Your task to perform on an android device: see tabs open on other devices in the chrome app Image 0: 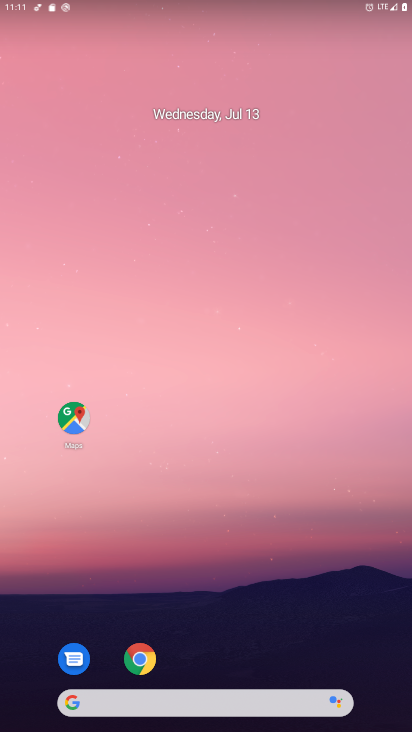
Step 0: press home button
Your task to perform on an android device: see tabs open on other devices in the chrome app Image 1: 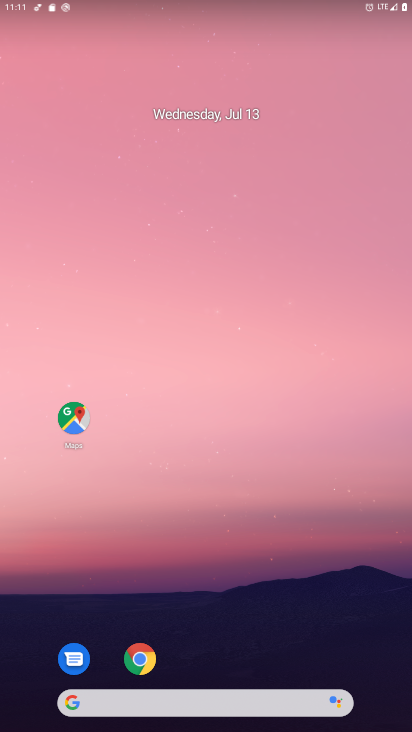
Step 1: click (140, 658)
Your task to perform on an android device: see tabs open on other devices in the chrome app Image 2: 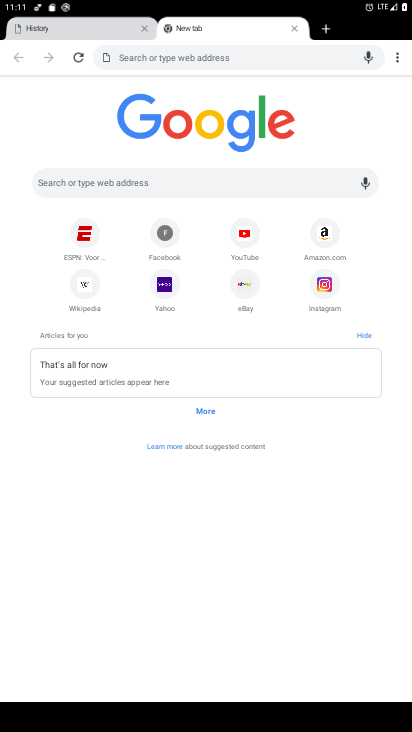
Step 2: click (394, 48)
Your task to perform on an android device: see tabs open on other devices in the chrome app Image 3: 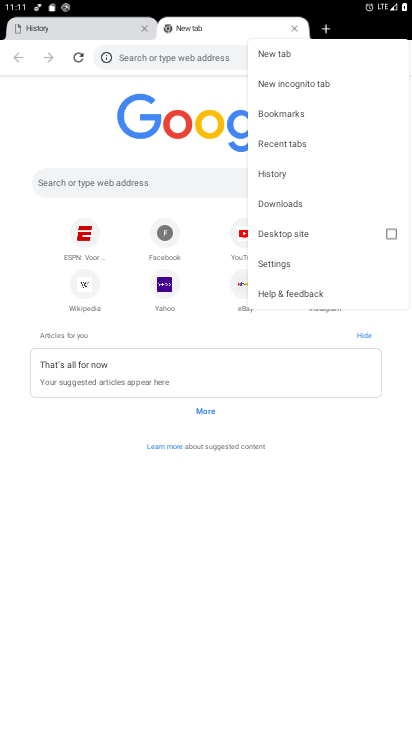
Step 3: click (308, 144)
Your task to perform on an android device: see tabs open on other devices in the chrome app Image 4: 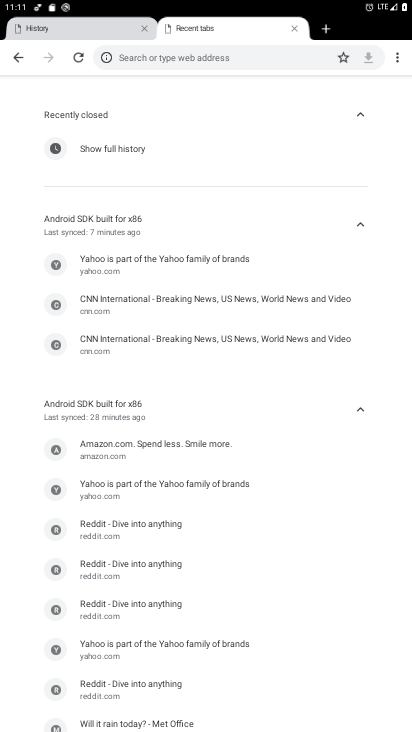
Step 4: task complete